Your task to perform on an android device: see creations saved in the google photos Image 0: 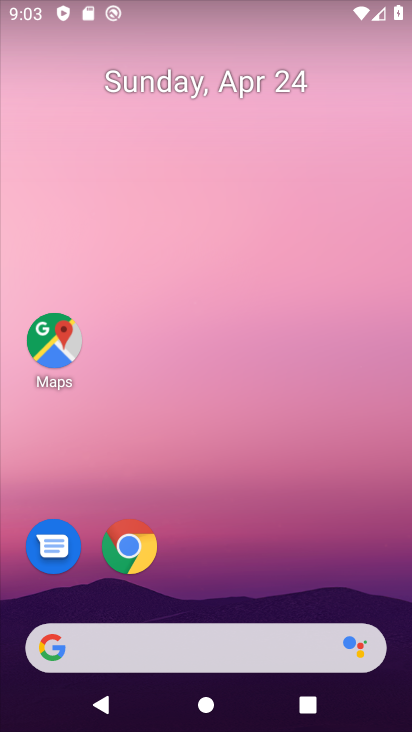
Step 0: drag from (263, 561) to (289, 231)
Your task to perform on an android device: see creations saved in the google photos Image 1: 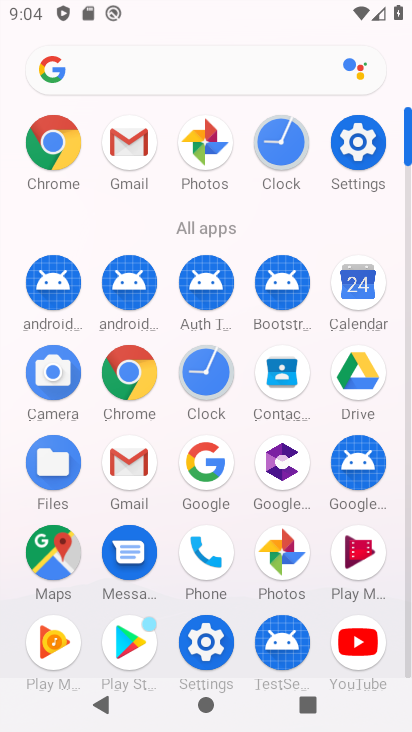
Step 1: click (290, 555)
Your task to perform on an android device: see creations saved in the google photos Image 2: 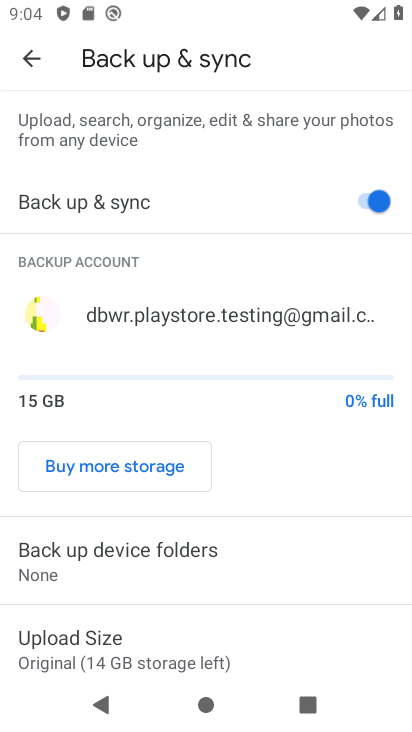
Step 2: click (33, 59)
Your task to perform on an android device: see creations saved in the google photos Image 3: 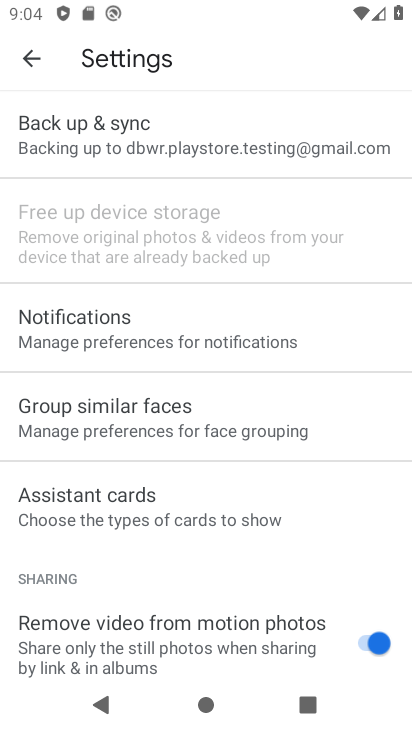
Step 3: click (33, 59)
Your task to perform on an android device: see creations saved in the google photos Image 4: 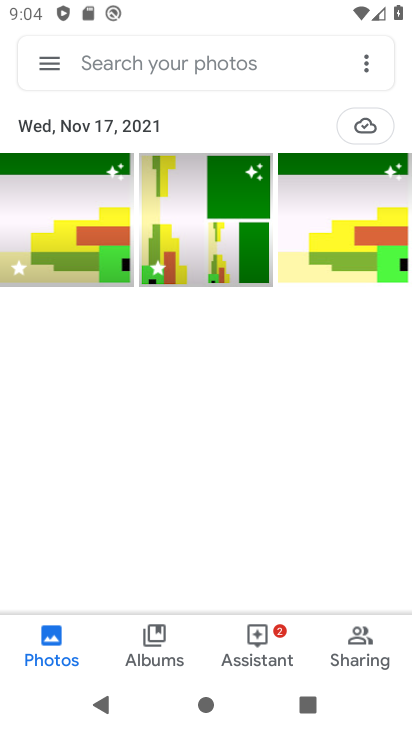
Step 4: click (89, 289)
Your task to perform on an android device: see creations saved in the google photos Image 5: 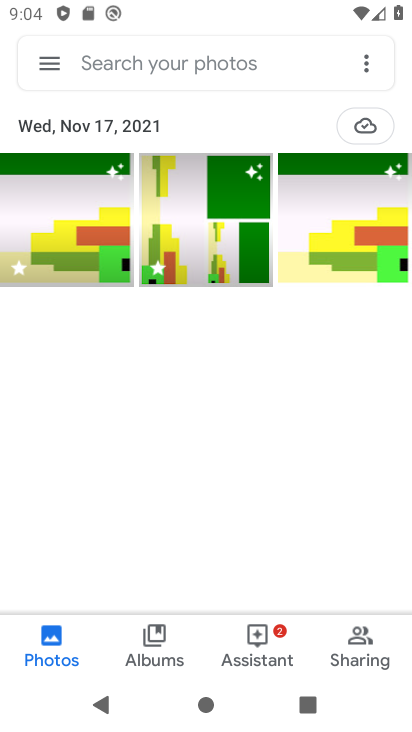
Step 5: click (79, 222)
Your task to perform on an android device: see creations saved in the google photos Image 6: 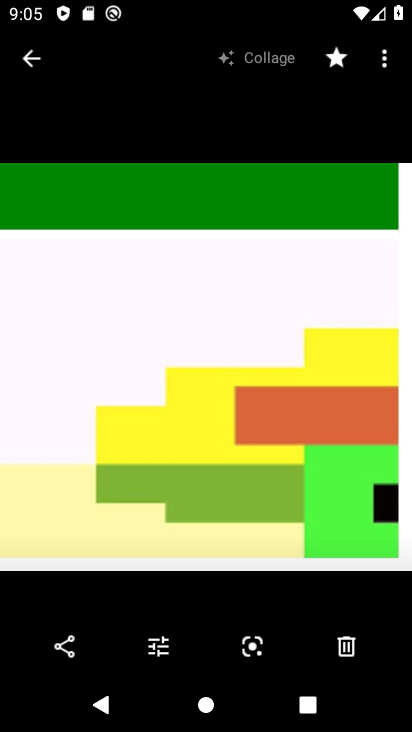
Step 6: task complete